Your task to perform on an android device: Open location settings Image 0: 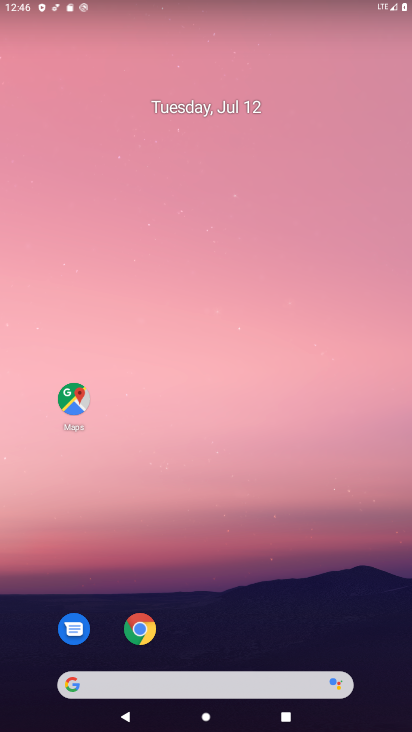
Step 0: drag from (37, 699) to (256, 122)
Your task to perform on an android device: Open location settings Image 1: 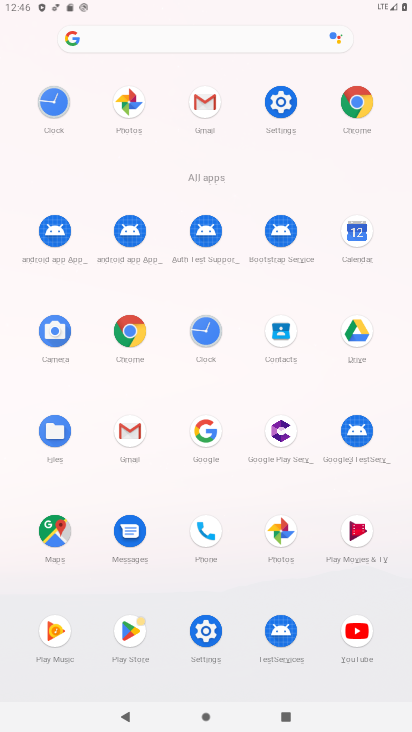
Step 1: click (50, 536)
Your task to perform on an android device: Open location settings Image 2: 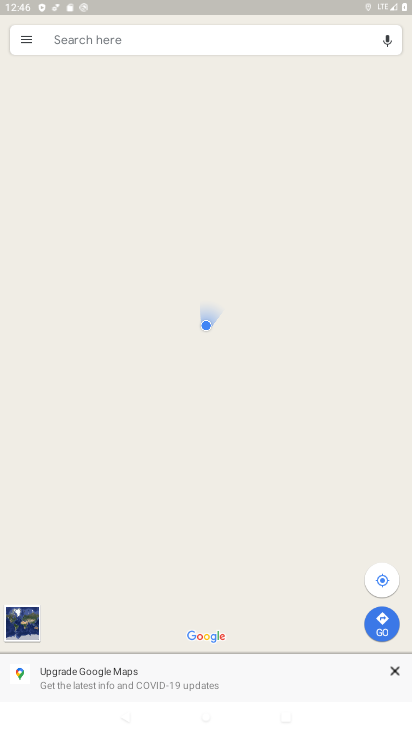
Step 2: click (23, 44)
Your task to perform on an android device: Open location settings Image 3: 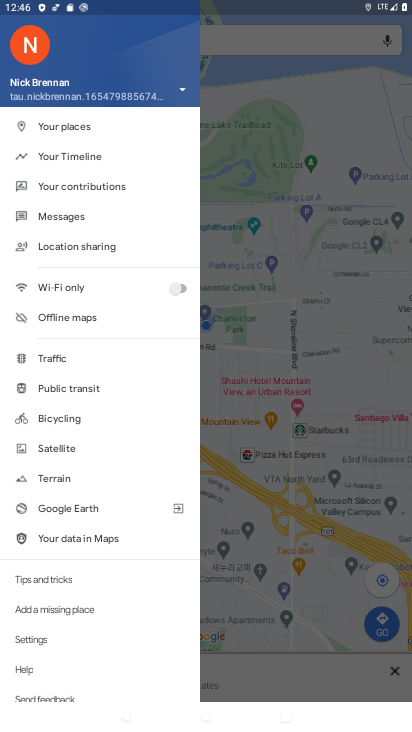
Step 3: click (338, 266)
Your task to perform on an android device: Open location settings Image 4: 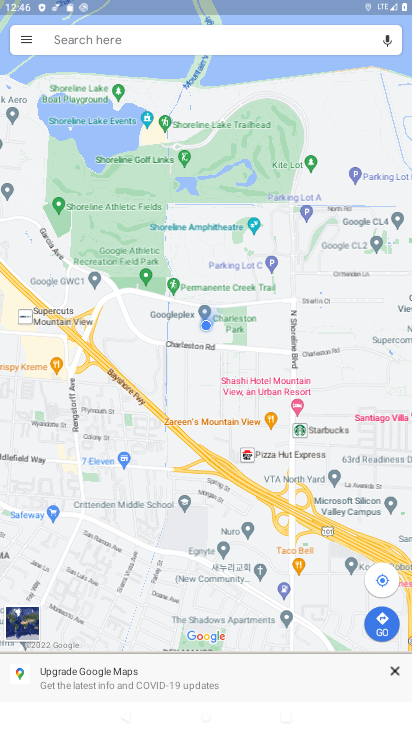
Step 4: click (281, 95)
Your task to perform on an android device: Open location settings Image 5: 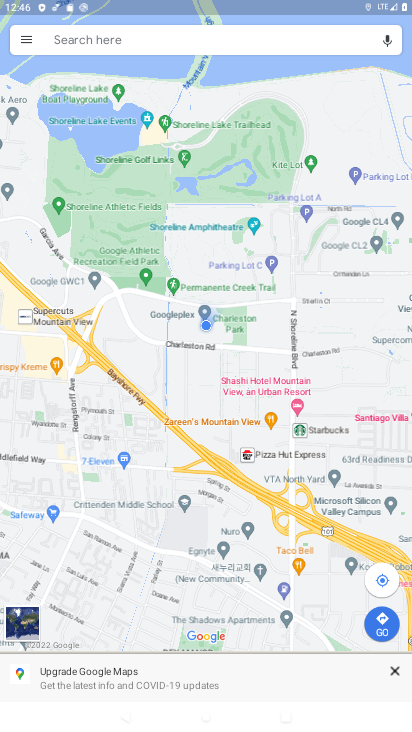
Step 5: task complete